Your task to perform on an android device: turn on improve location accuracy Image 0: 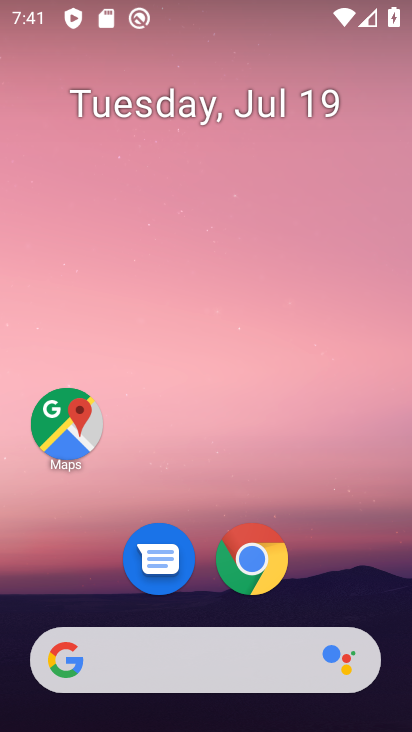
Step 0: drag from (111, 583) to (157, 21)
Your task to perform on an android device: turn on improve location accuracy Image 1: 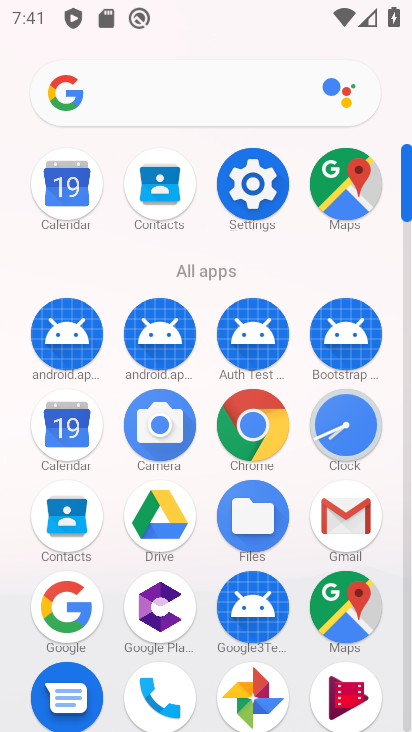
Step 1: click (237, 190)
Your task to perform on an android device: turn on improve location accuracy Image 2: 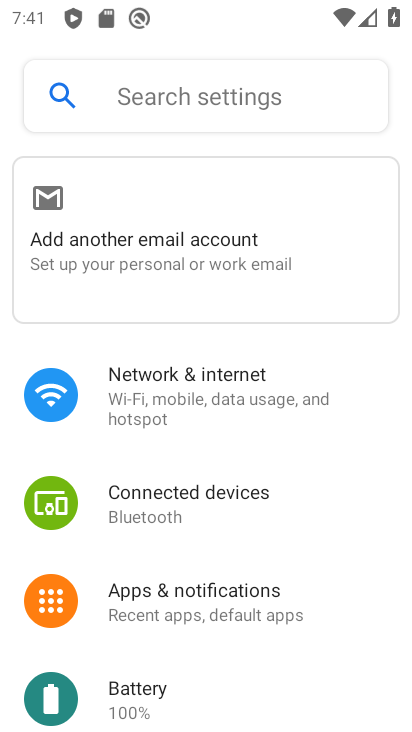
Step 2: drag from (163, 700) to (278, 139)
Your task to perform on an android device: turn on improve location accuracy Image 3: 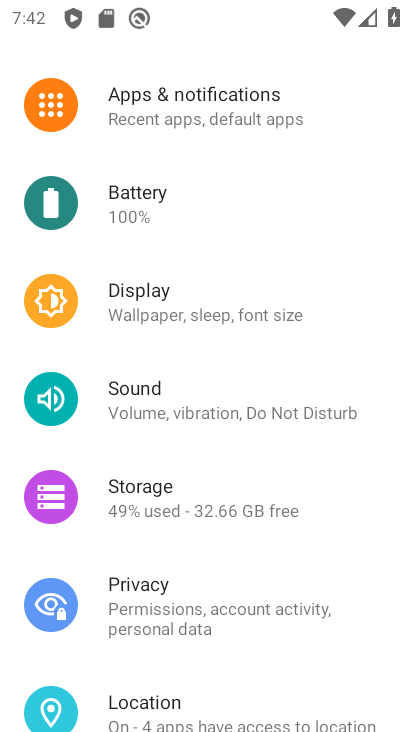
Step 3: click (146, 707)
Your task to perform on an android device: turn on improve location accuracy Image 4: 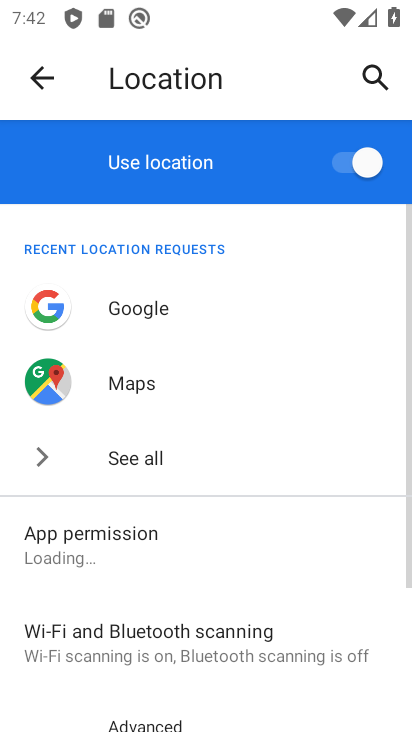
Step 4: drag from (173, 674) to (315, 155)
Your task to perform on an android device: turn on improve location accuracy Image 5: 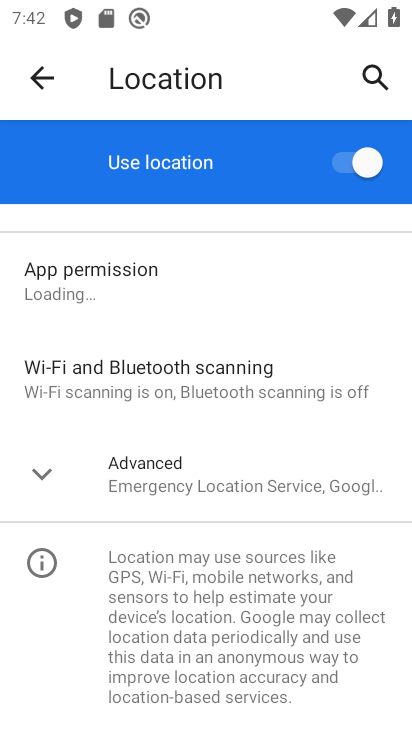
Step 5: click (157, 486)
Your task to perform on an android device: turn on improve location accuracy Image 6: 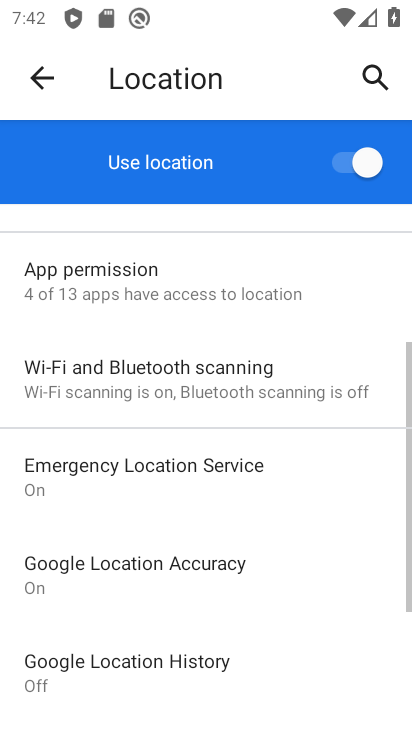
Step 6: click (146, 582)
Your task to perform on an android device: turn on improve location accuracy Image 7: 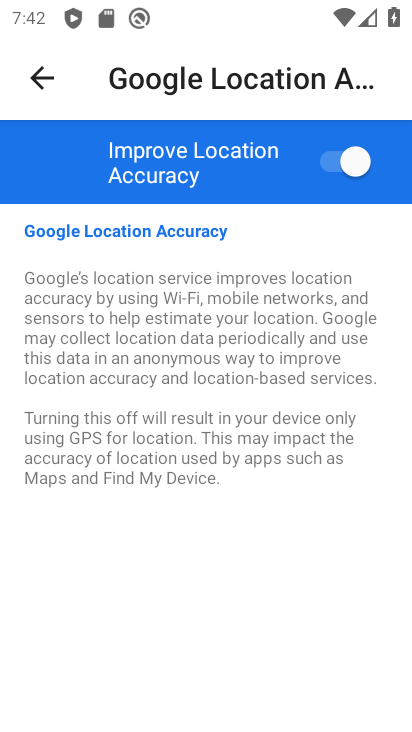
Step 7: task complete